Your task to perform on an android device: Open the map Image 0: 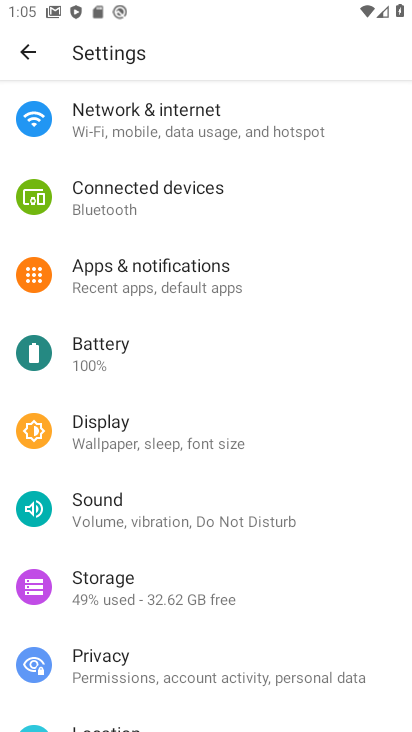
Step 0: press home button
Your task to perform on an android device: Open the map Image 1: 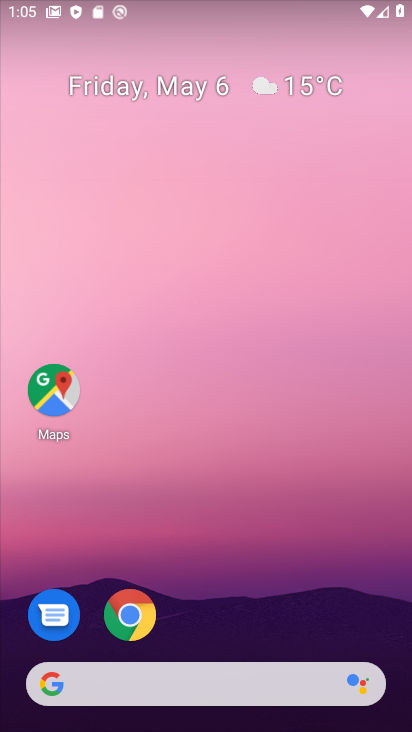
Step 1: drag from (259, 555) to (266, 49)
Your task to perform on an android device: Open the map Image 2: 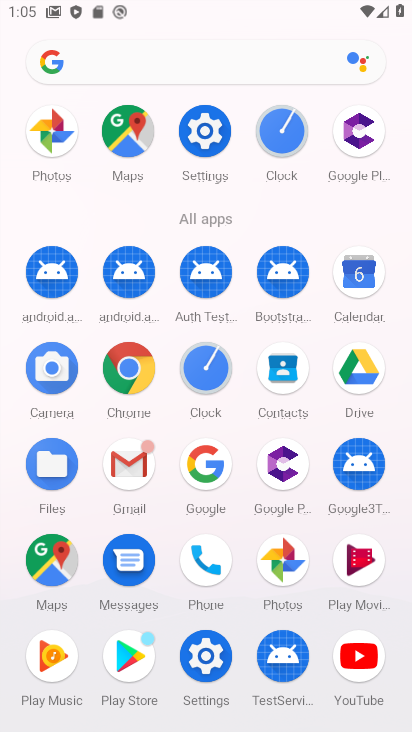
Step 2: click (41, 547)
Your task to perform on an android device: Open the map Image 3: 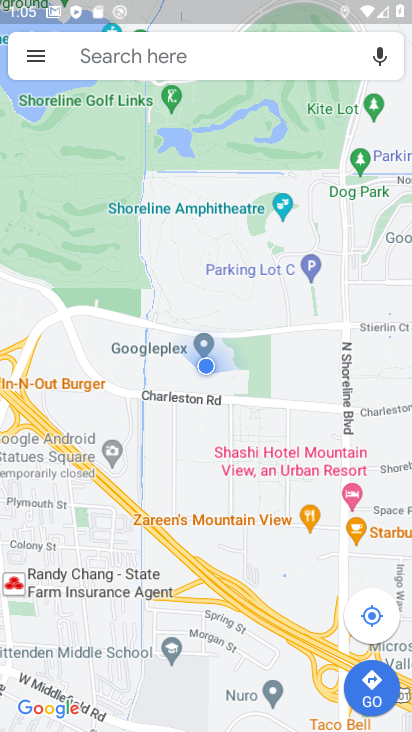
Step 3: task complete